Your task to perform on an android device: Open wifi settings Image 0: 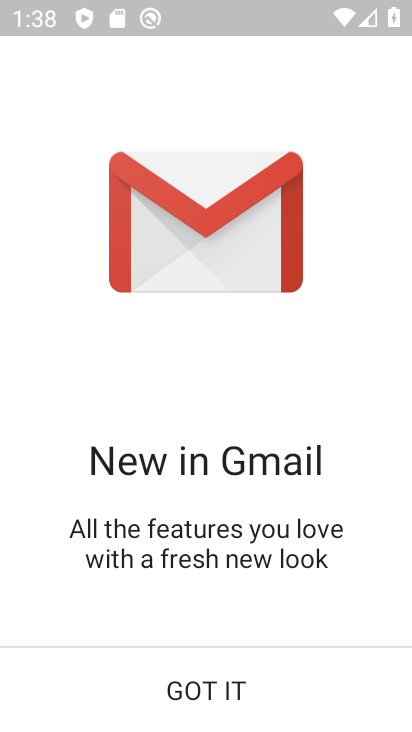
Step 0: press home button
Your task to perform on an android device: Open wifi settings Image 1: 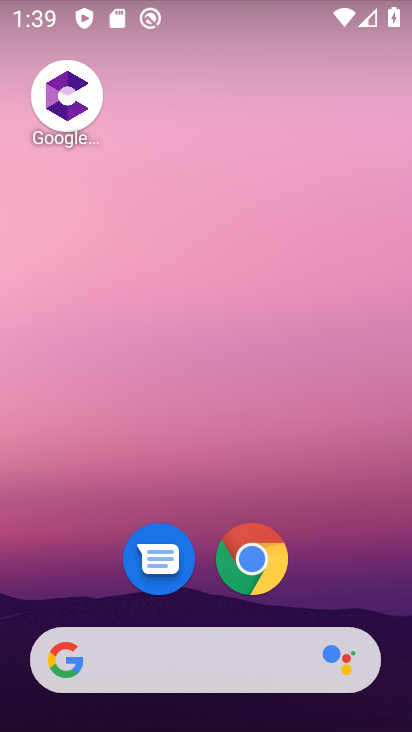
Step 1: drag from (335, 542) to (385, 163)
Your task to perform on an android device: Open wifi settings Image 2: 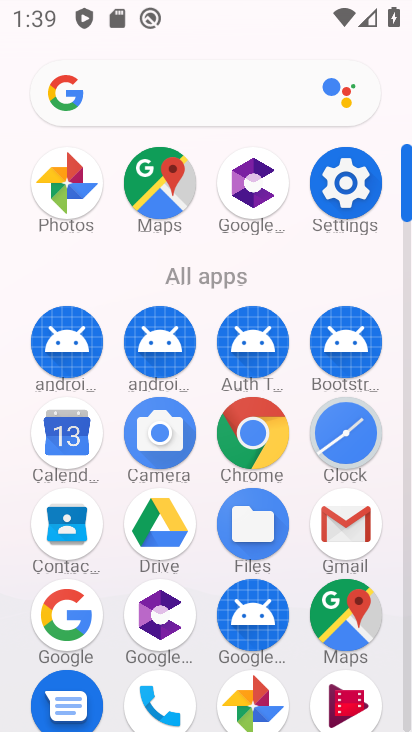
Step 2: click (343, 205)
Your task to perform on an android device: Open wifi settings Image 3: 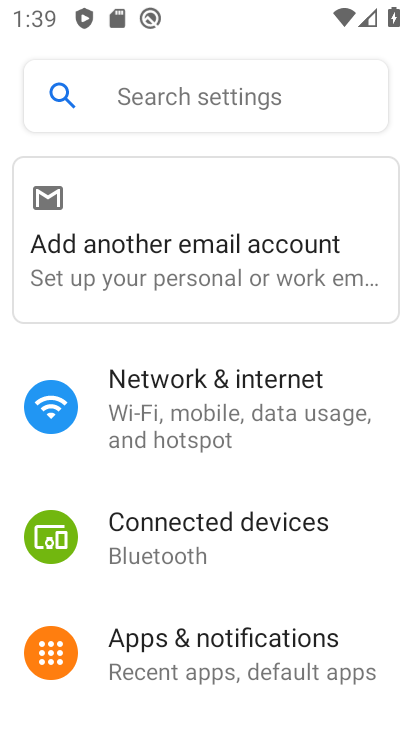
Step 3: click (216, 415)
Your task to perform on an android device: Open wifi settings Image 4: 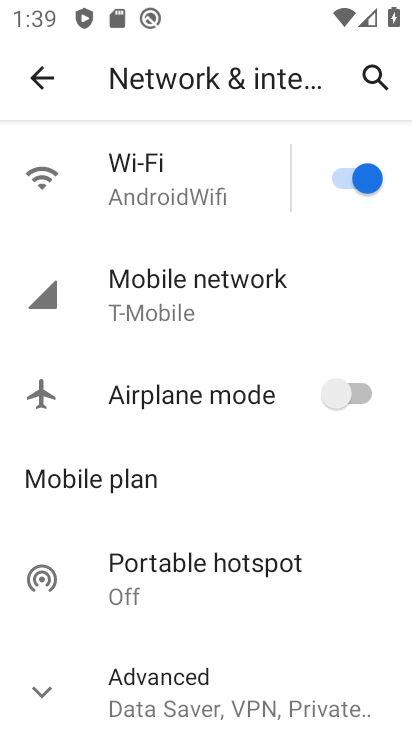
Step 4: click (187, 172)
Your task to perform on an android device: Open wifi settings Image 5: 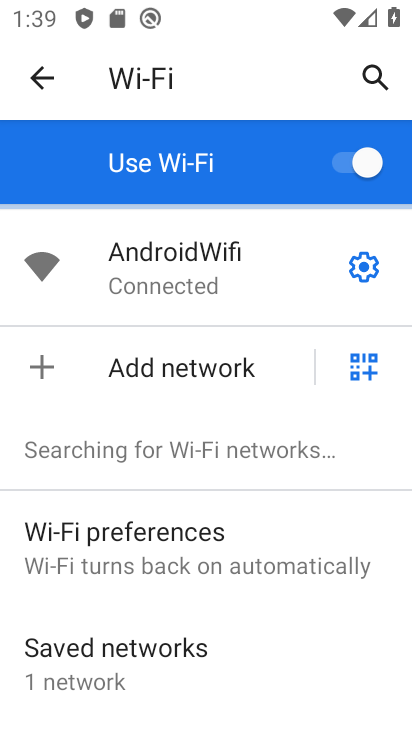
Step 5: task complete